Your task to perform on an android device: Open Google Chrome Image 0: 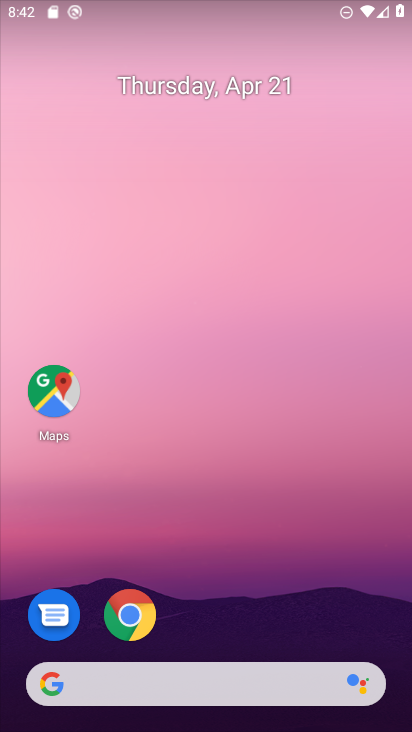
Step 0: drag from (241, 468) to (274, 74)
Your task to perform on an android device: Open Google Chrome Image 1: 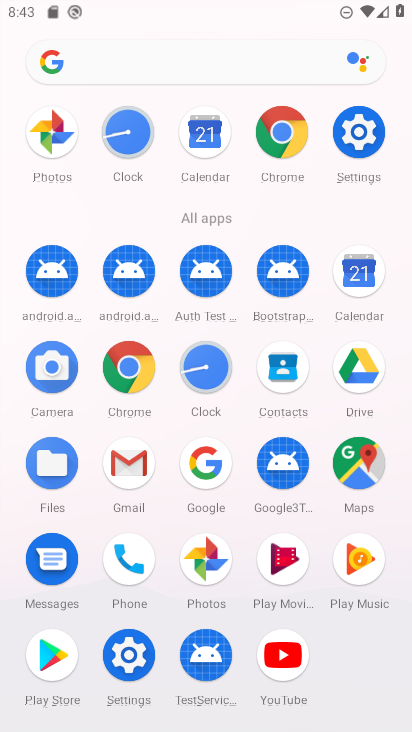
Step 1: click (276, 137)
Your task to perform on an android device: Open Google Chrome Image 2: 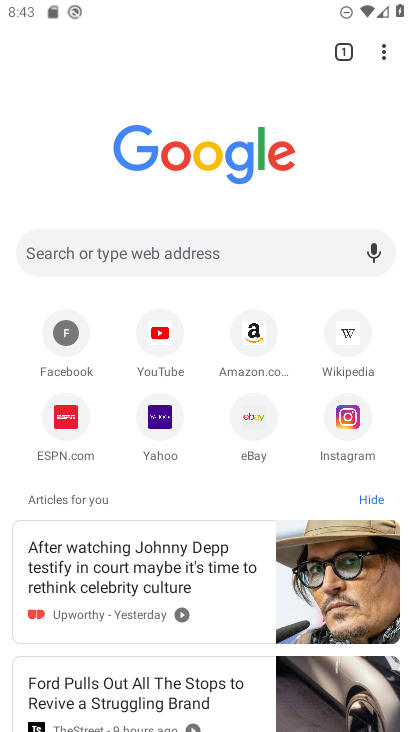
Step 2: click (381, 57)
Your task to perform on an android device: Open Google Chrome Image 3: 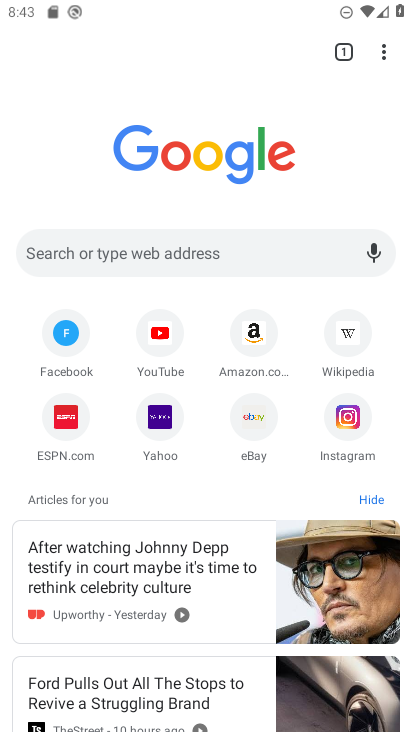
Step 3: drag from (381, 56) to (42, 102)
Your task to perform on an android device: Open Google Chrome Image 4: 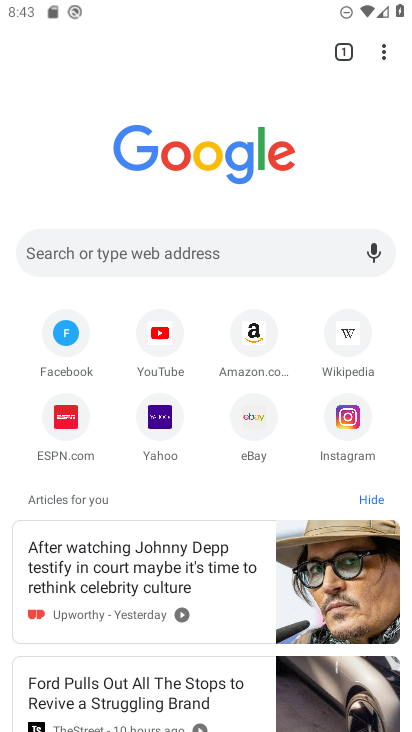
Step 4: click (76, 149)
Your task to perform on an android device: Open Google Chrome Image 5: 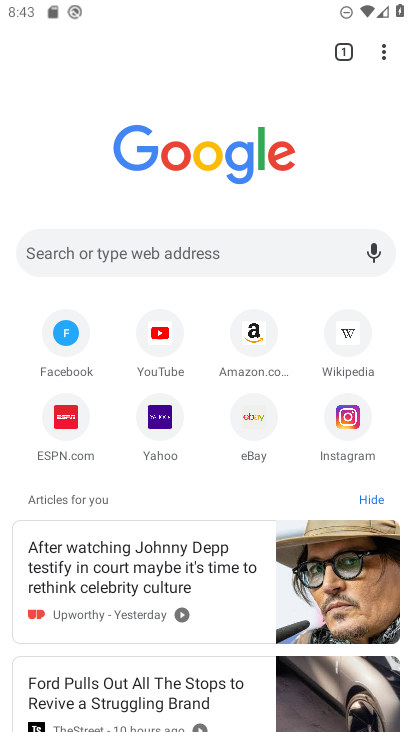
Step 5: task complete